Your task to perform on an android device: Open my contact list Image 0: 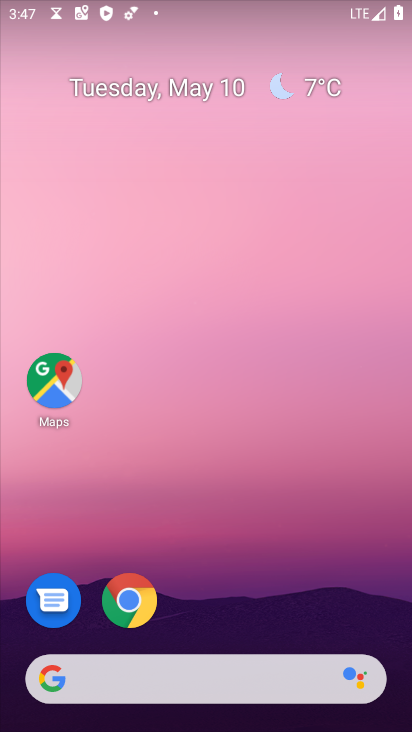
Step 0: drag from (215, 598) to (282, 350)
Your task to perform on an android device: Open my contact list Image 1: 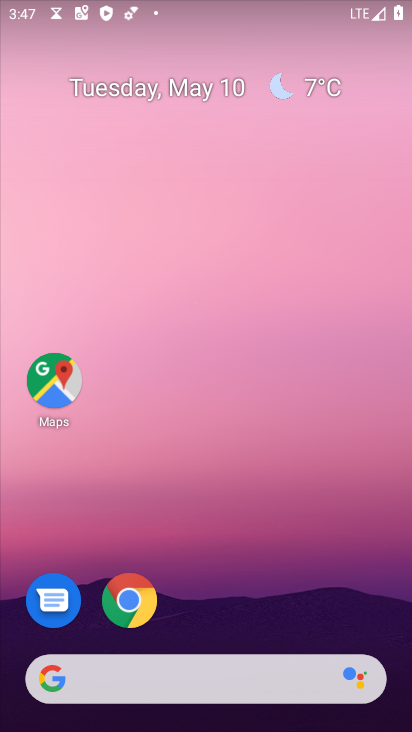
Step 1: drag from (194, 565) to (276, 28)
Your task to perform on an android device: Open my contact list Image 2: 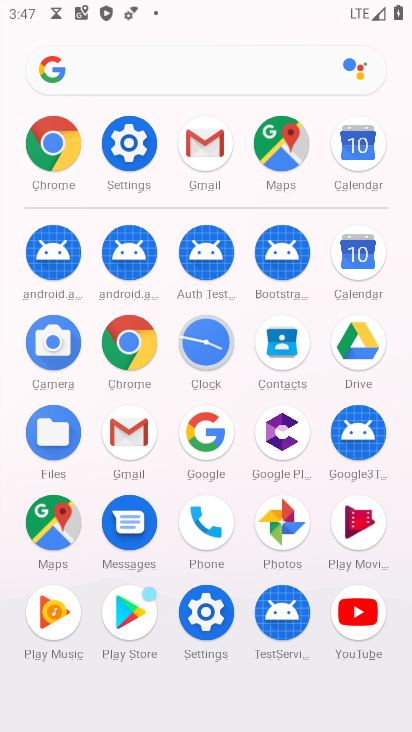
Step 2: click (278, 349)
Your task to perform on an android device: Open my contact list Image 3: 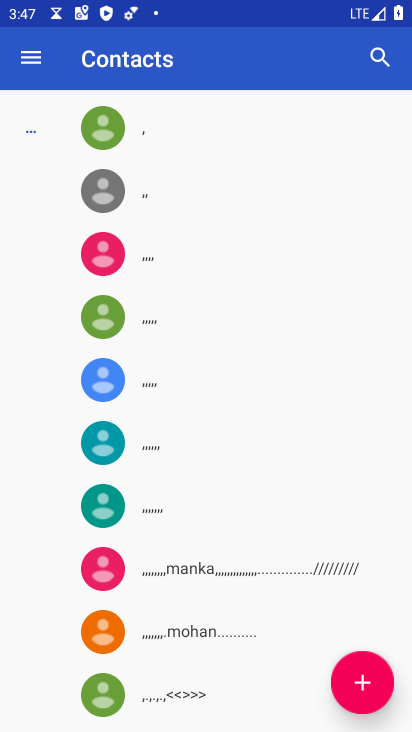
Step 3: drag from (248, 510) to (267, 274)
Your task to perform on an android device: Open my contact list Image 4: 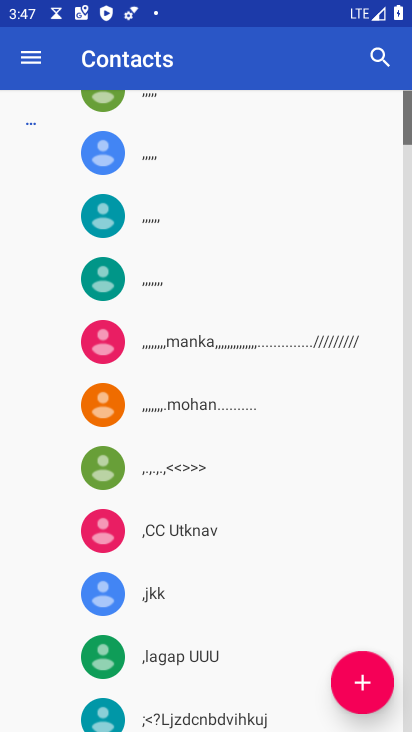
Step 4: drag from (347, 701) to (344, 294)
Your task to perform on an android device: Open my contact list Image 5: 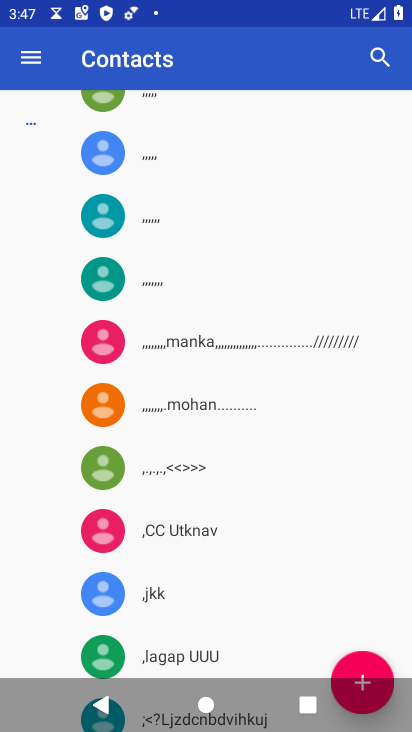
Step 5: click (235, 318)
Your task to perform on an android device: Open my contact list Image 6: 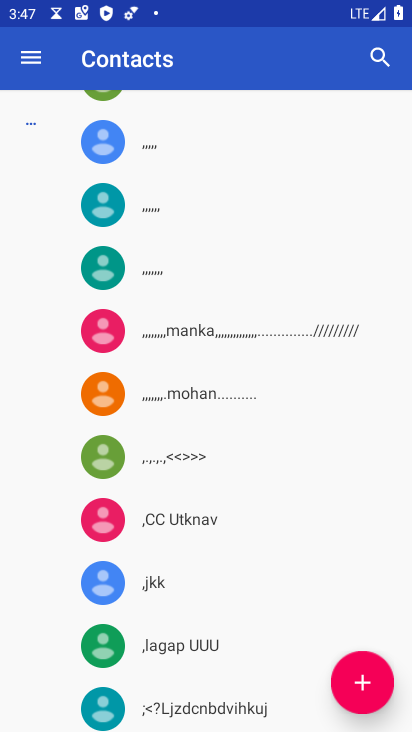
Step 6: task complete